Your task to perform on an android device: turn on bluetooth scan Image 0: 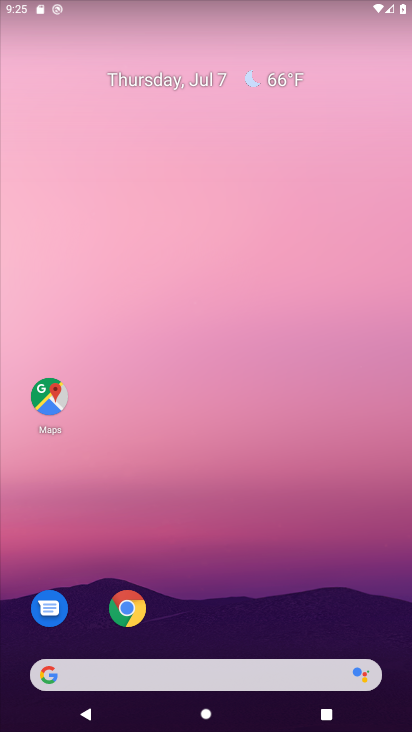
Step 0: drag from (256, 680) to (153, 223)
Your task to perform on an android device: turn on bluetooth scan Image 1: 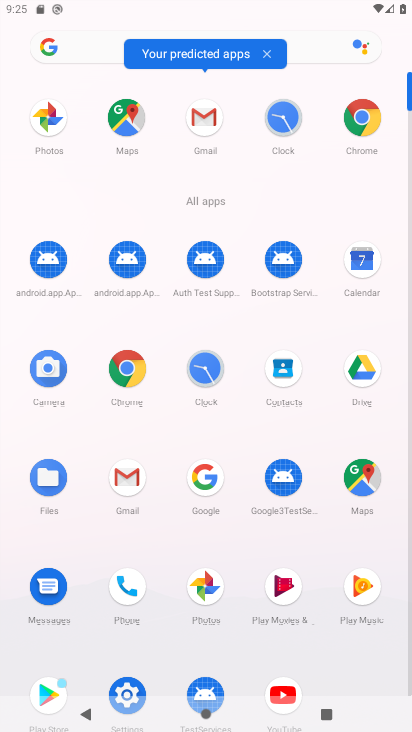
Step 1: click (137, 682)
Your task to perform on an android device: turn on bluetooth scan Image 2: 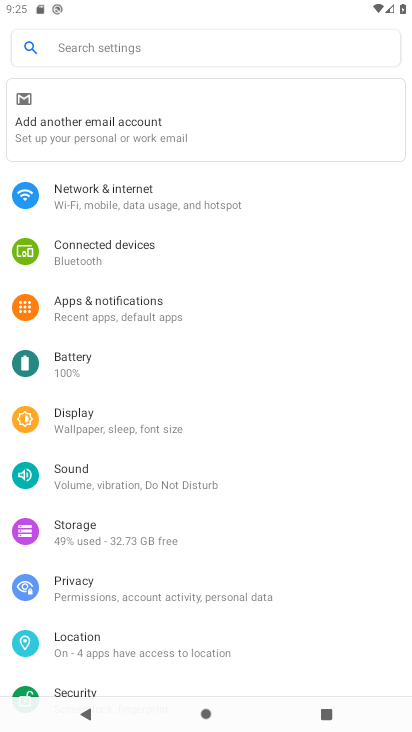
Step 2: click (91, 631)
Your task to perform on an android device: turn on bluetooth scan Image 3: 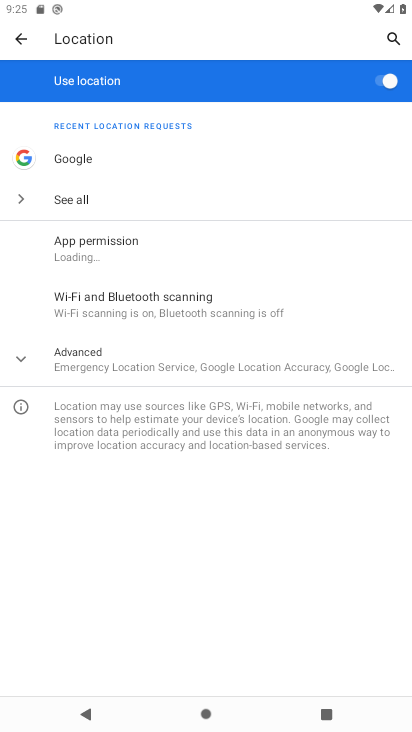
Step 3: click (103, 356)
Your task to perform on an android device: turn on bluetooth scan Image 4: 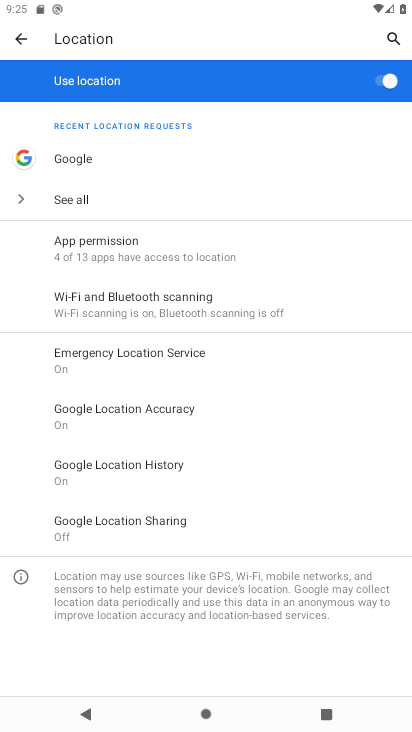
Step 4: click (141, 303)
Your task to perform on an android device: turn on bluetooth scan Image 5: 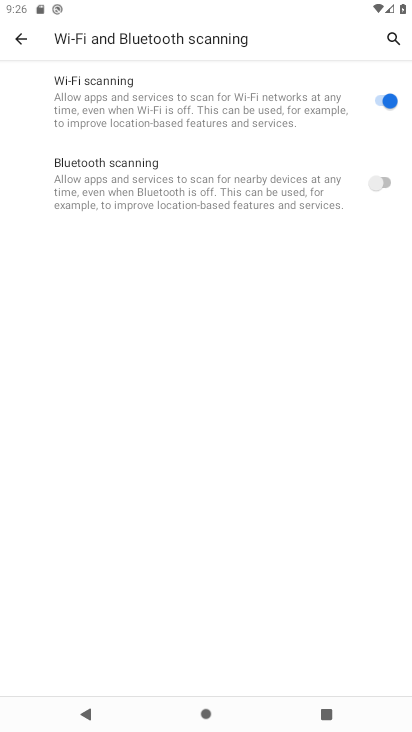
Step 5: click (384, 177)
Your task to perform on an android device: turn on bluetooth scan Image 6: 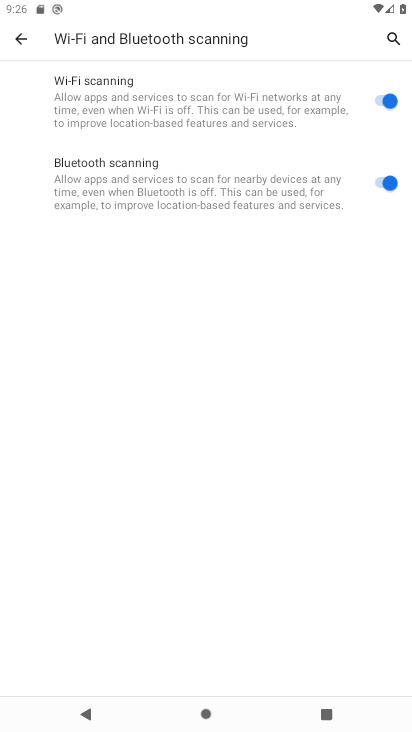
Step 6: task complete